Your task to perform on an android device: all mails in gmail Image 0: 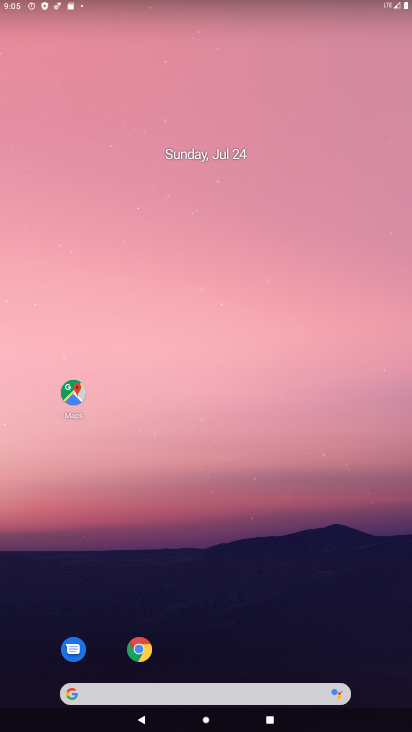
Step 0: drag from (29, 699) to (167, 194)
Your task to perform on an android device: all mails in gmail Image 1: 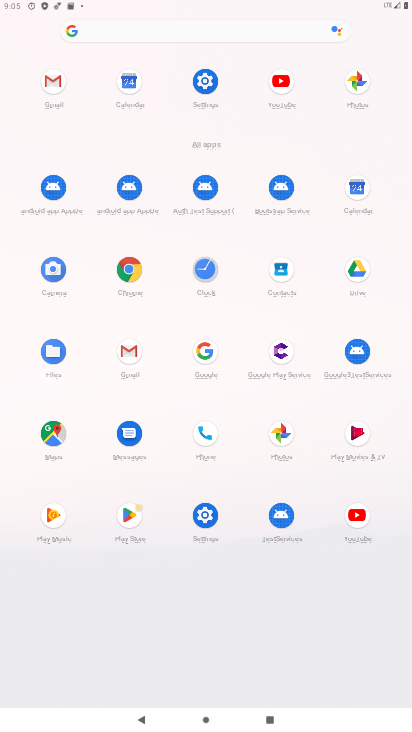
Step 1: click (126, 360)
Your task to perform on an android device: all mails in gmail Image 2: 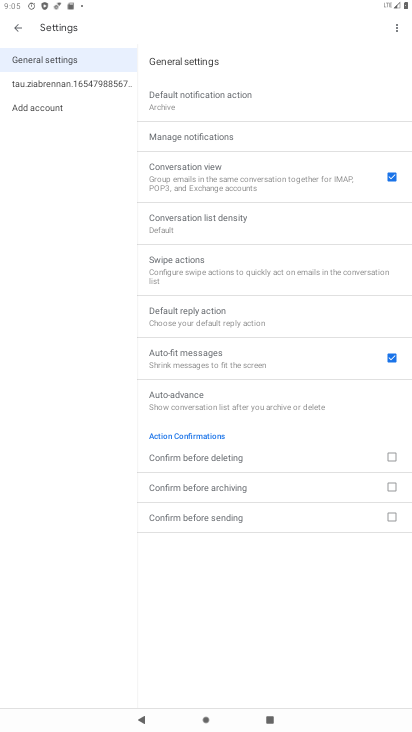
Step 2: click (14, 34)
Your task to perform on an android device: all mails in gmail Image 3: 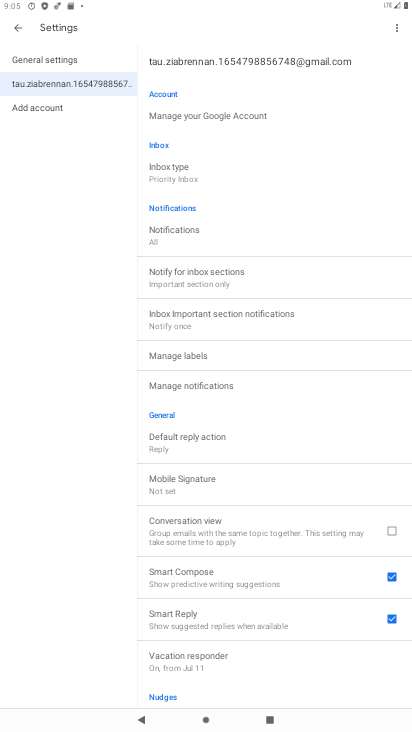
Step 3: click (15, 24)
Your task to perform on an android device: all mails in gmail Image 4: 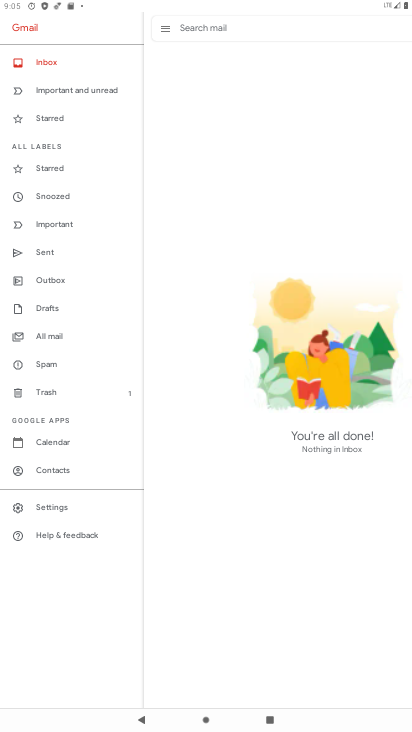
Step 4: click (31, 331)
Your task to perform on an android device: all mails in gmail Image 5: 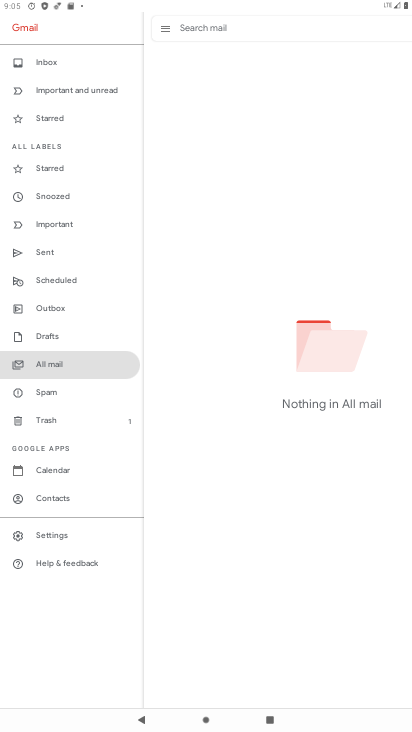
Step 5: task complete